Your task to perform on an android device: Open Chrome and go to the settings page Image 0: 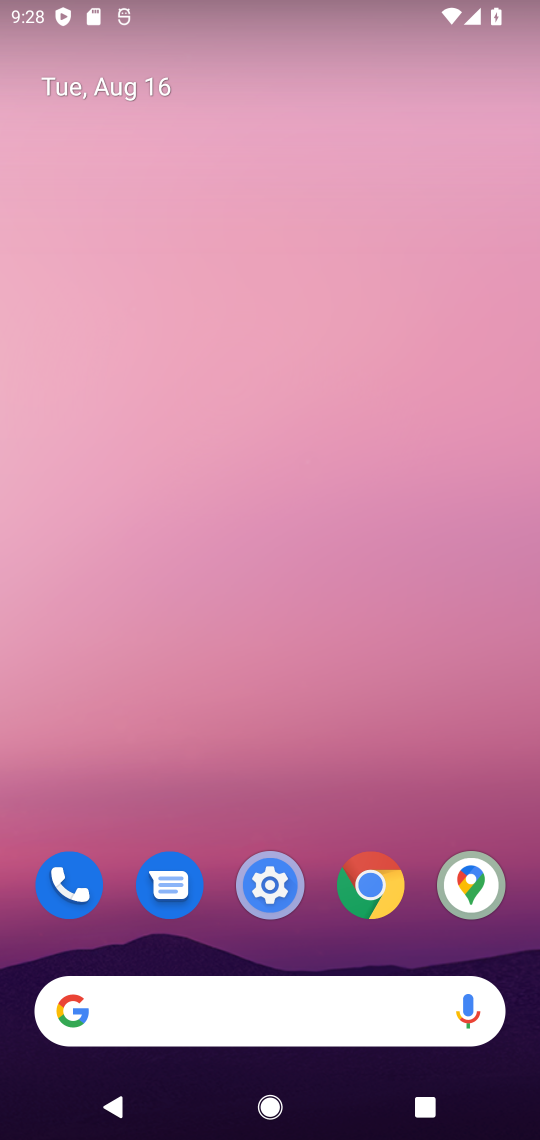
Step 0: click (373, 886)
Your task to perform on an android device: Open Chrome and go to the settings page Image 1: 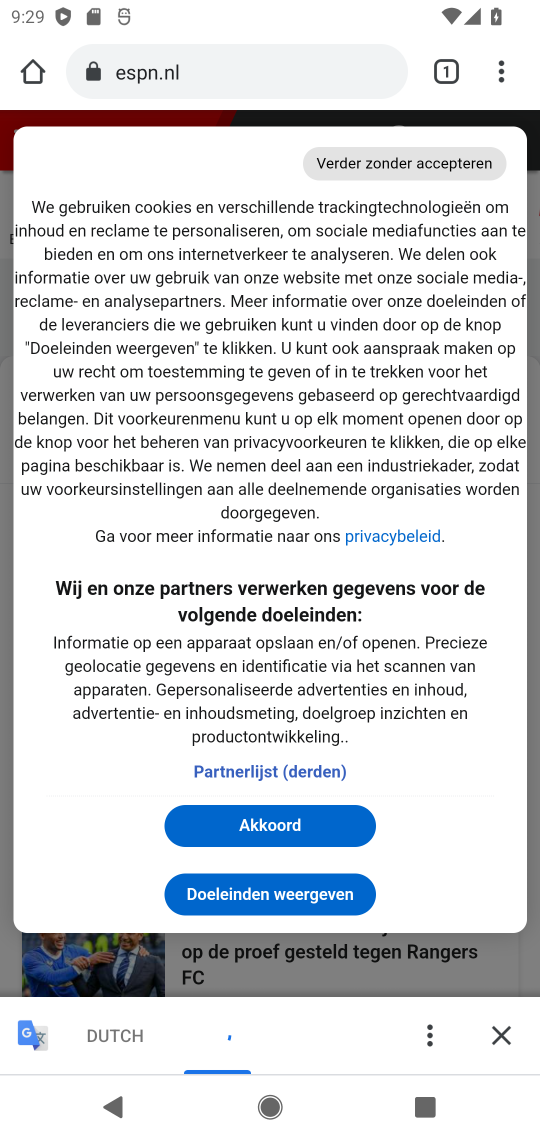
Step 1: click (501, 76)
Your task to perform on an android device: Open Chrome and go to the settings page Image 2: 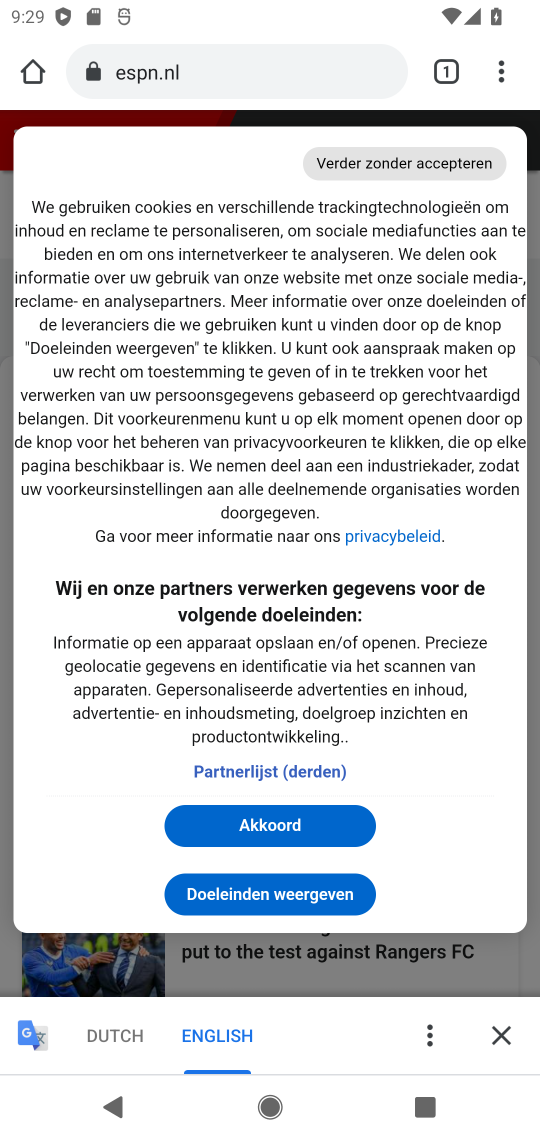
Step 2: click (501, 76)
Your task to perform on an android device: Open Chrome and go to the settings page Image 3: 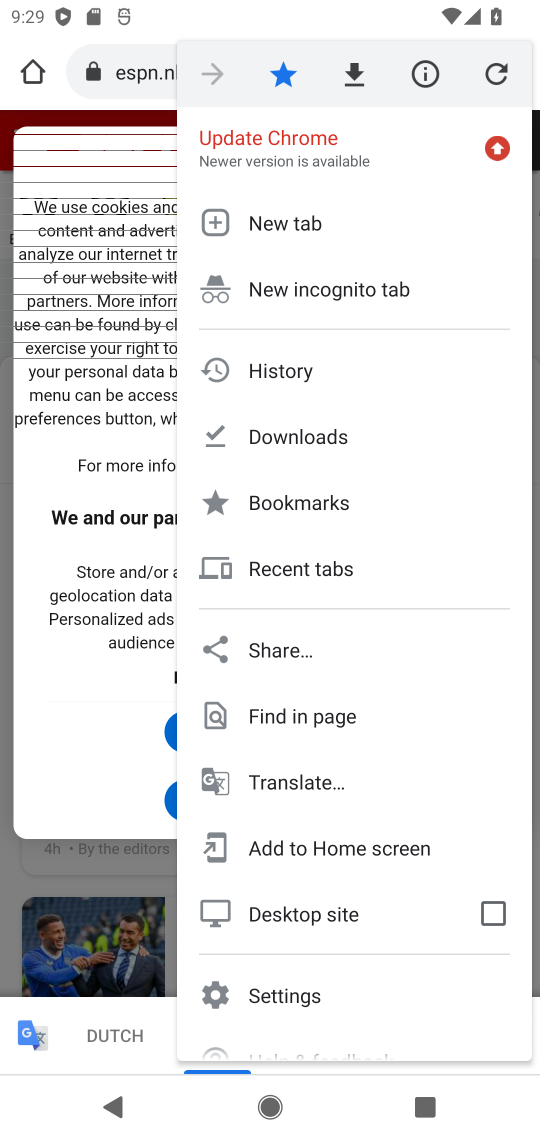
Step 3: click (262, 993)
Your task to perform on an android device: Open Chrome and go to the settings page Image 4: 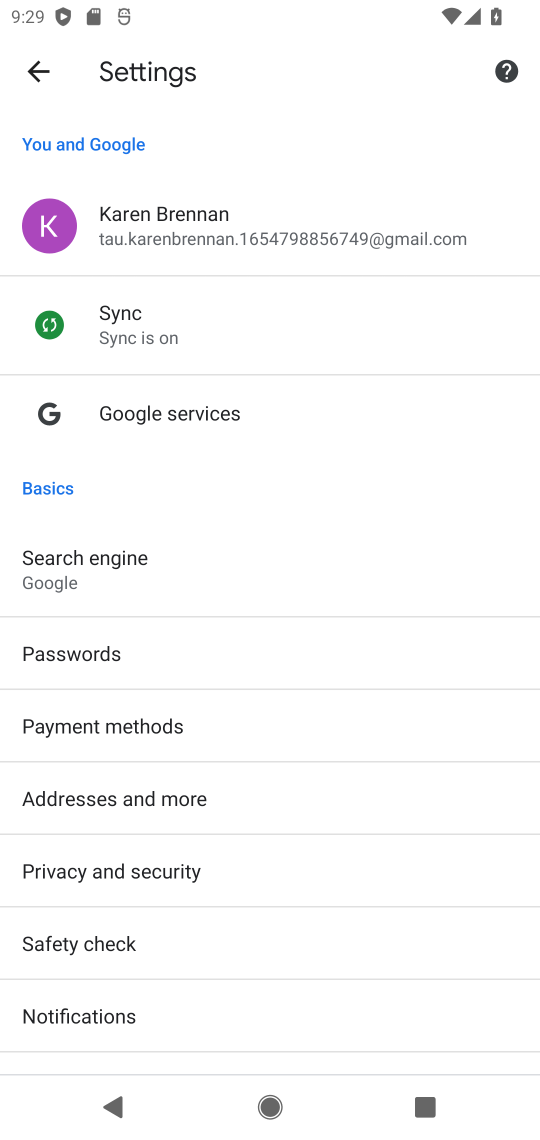
Step 4: task complete